Your task to perform on an android device: toggle improve location accuracy Image 0: 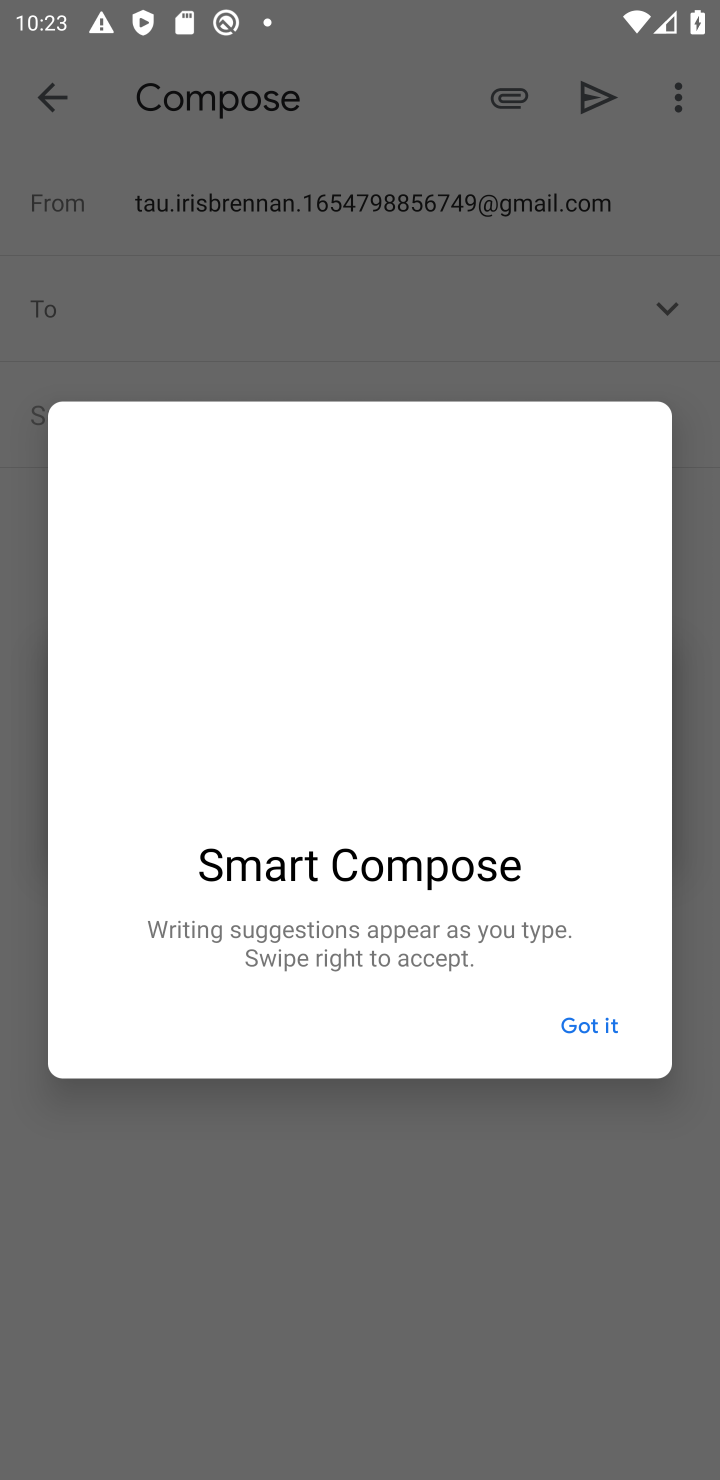
Step 0: press home button
Your task to perform on an android device: toggle improve location accuracy Image 1: 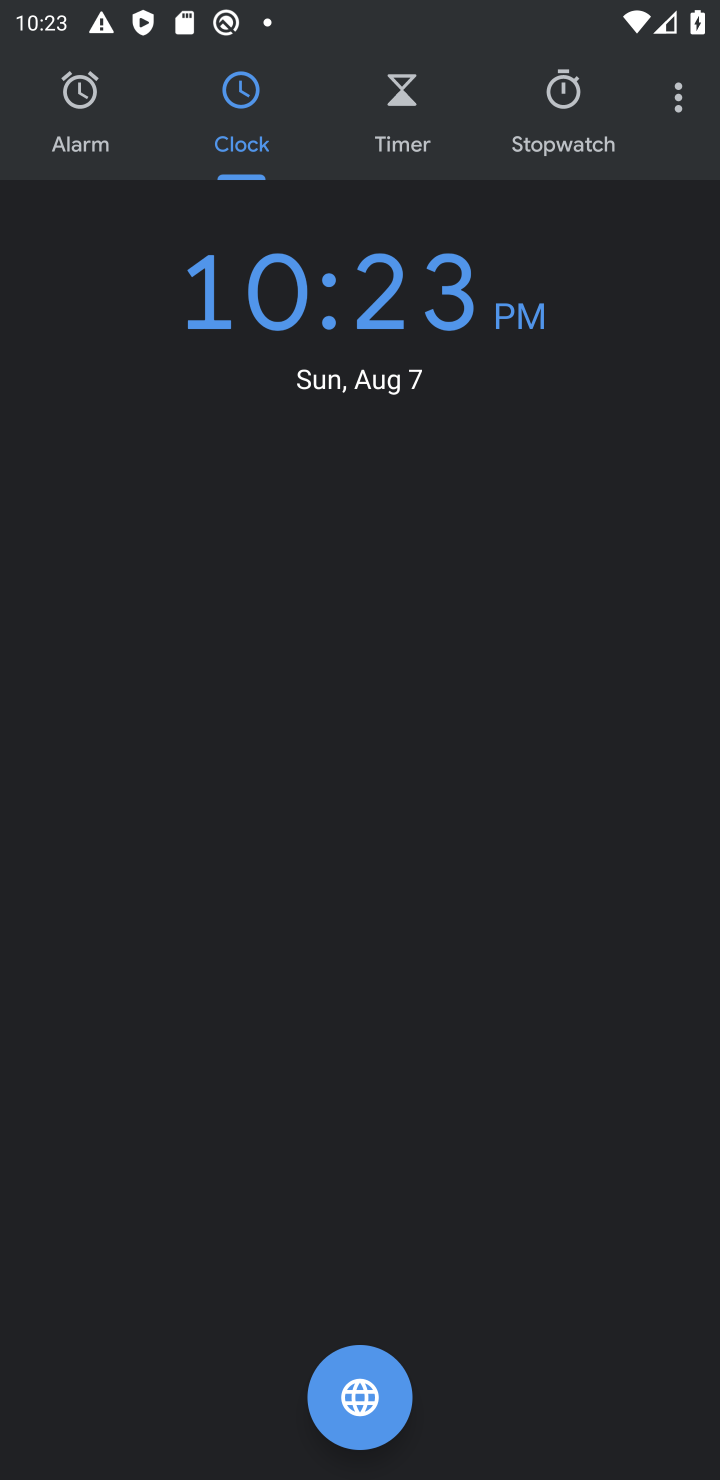
Step 1: press home button
Your task to perform on an android device: toggle improve location accuracy Image 2: 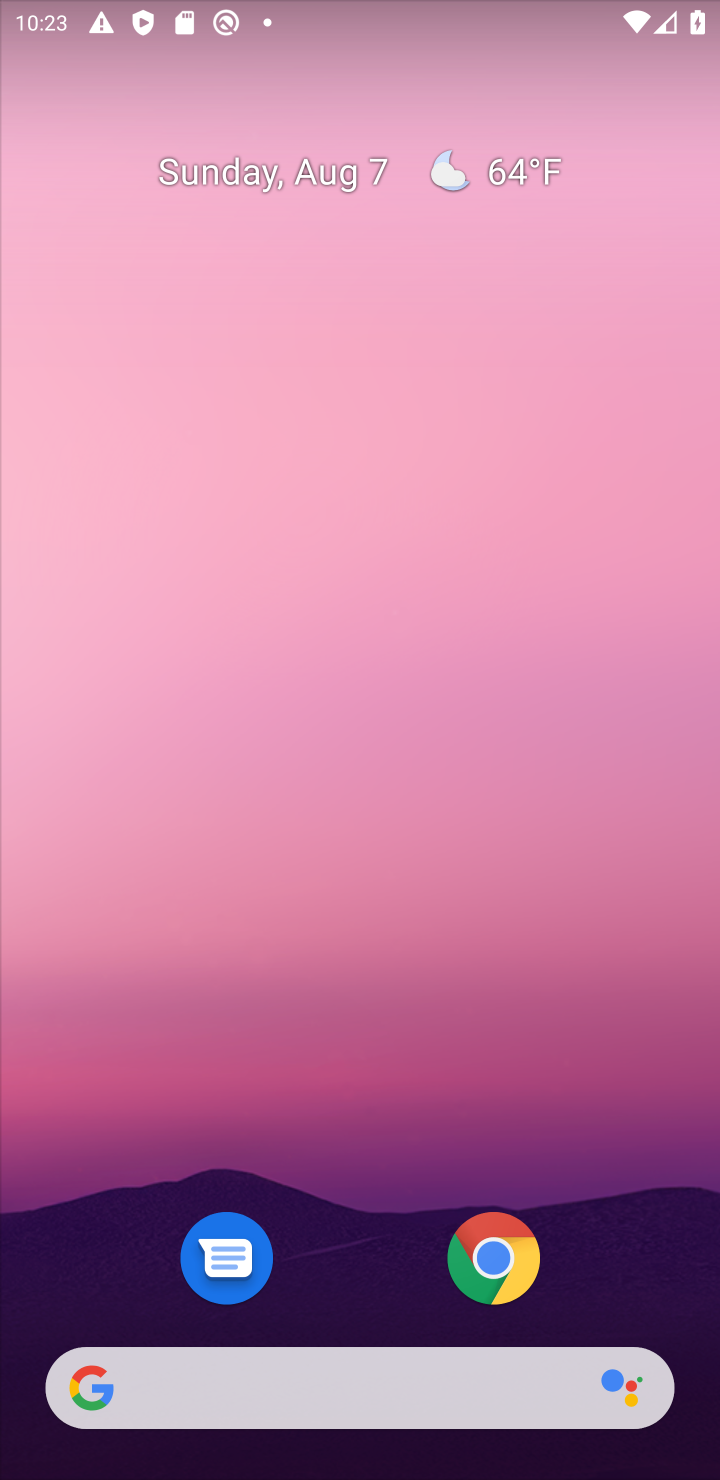
Step 2: press home button
Your task to perform on an android device: toggle improve location accuracy Image 3: 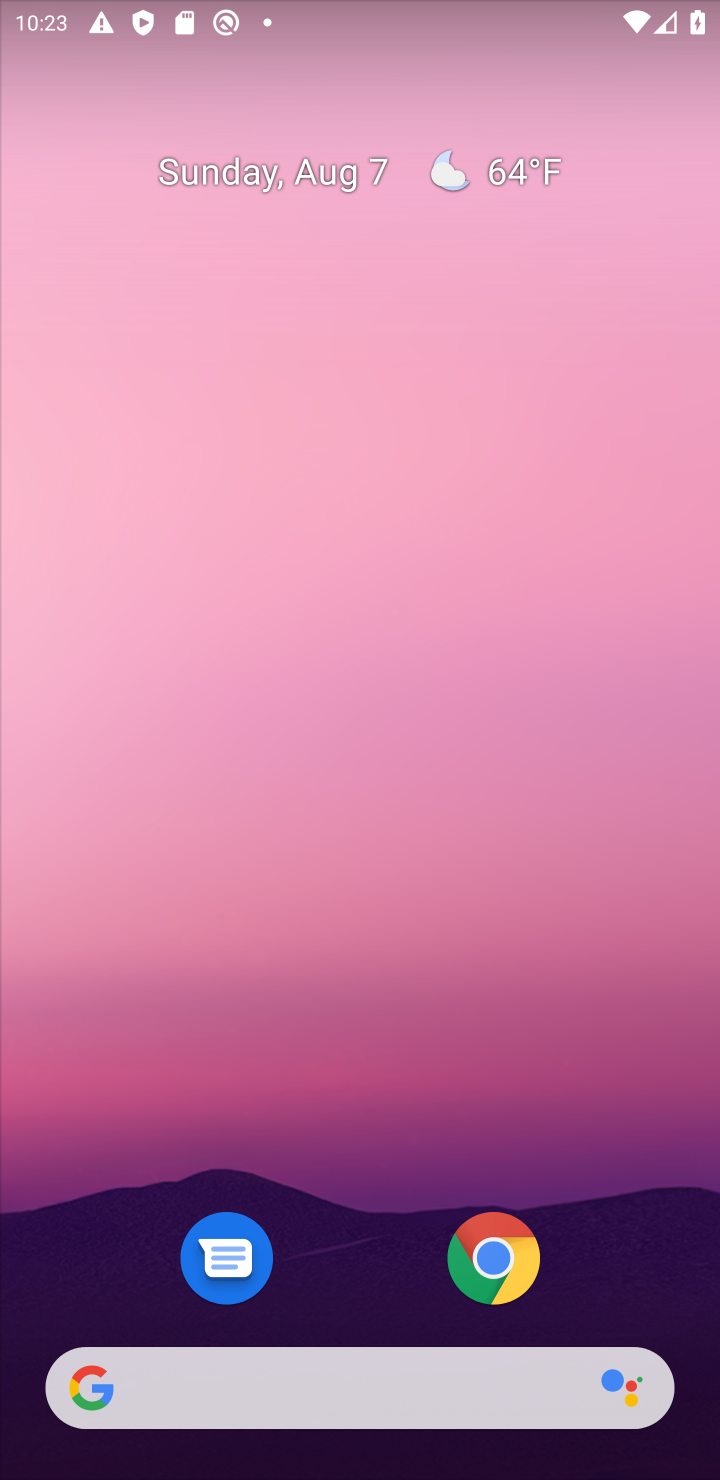
Step 3: click (560, 509)
Your task to perform on an android device: toggle improve location accuracy Image 4: 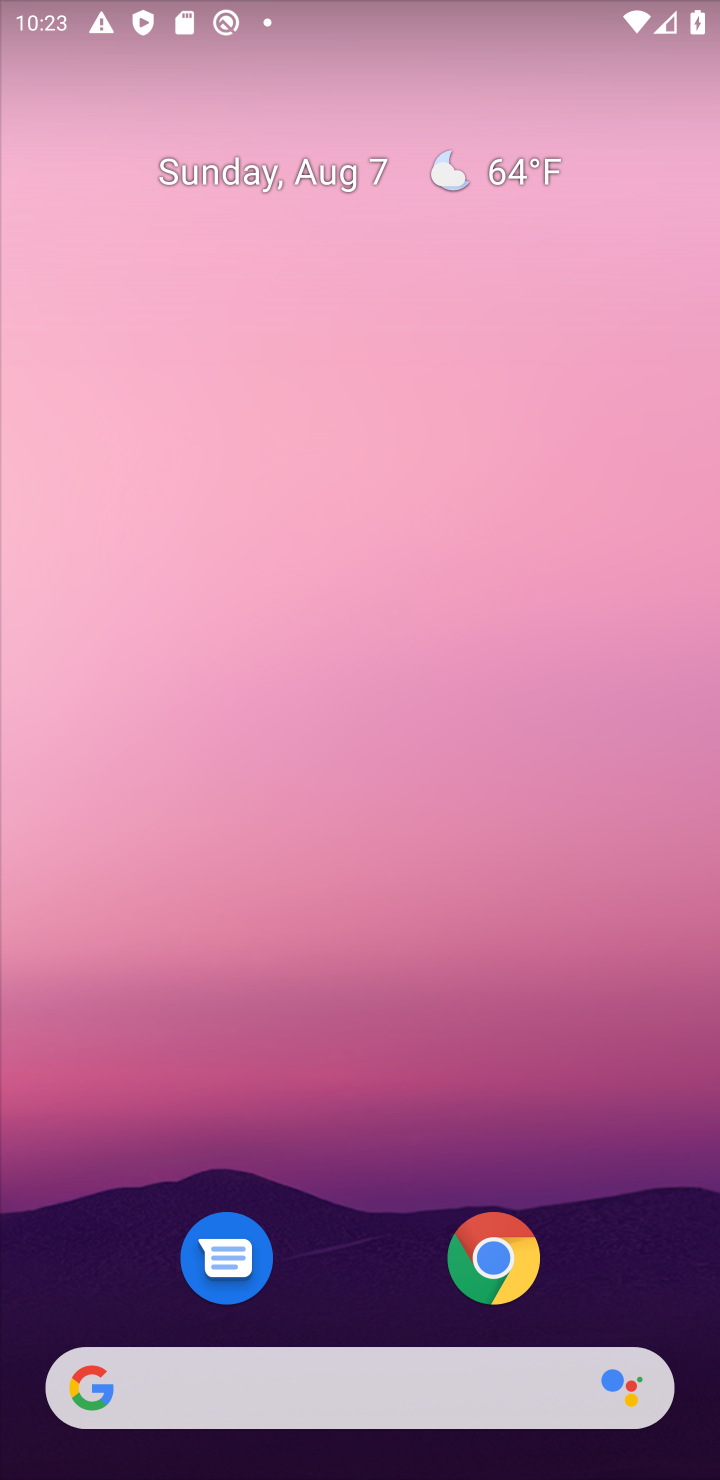
Step 4: drag from (334, 1223) to (220, 105)
Your task to perform on an android device: toggle improve location accuracy Image 5: 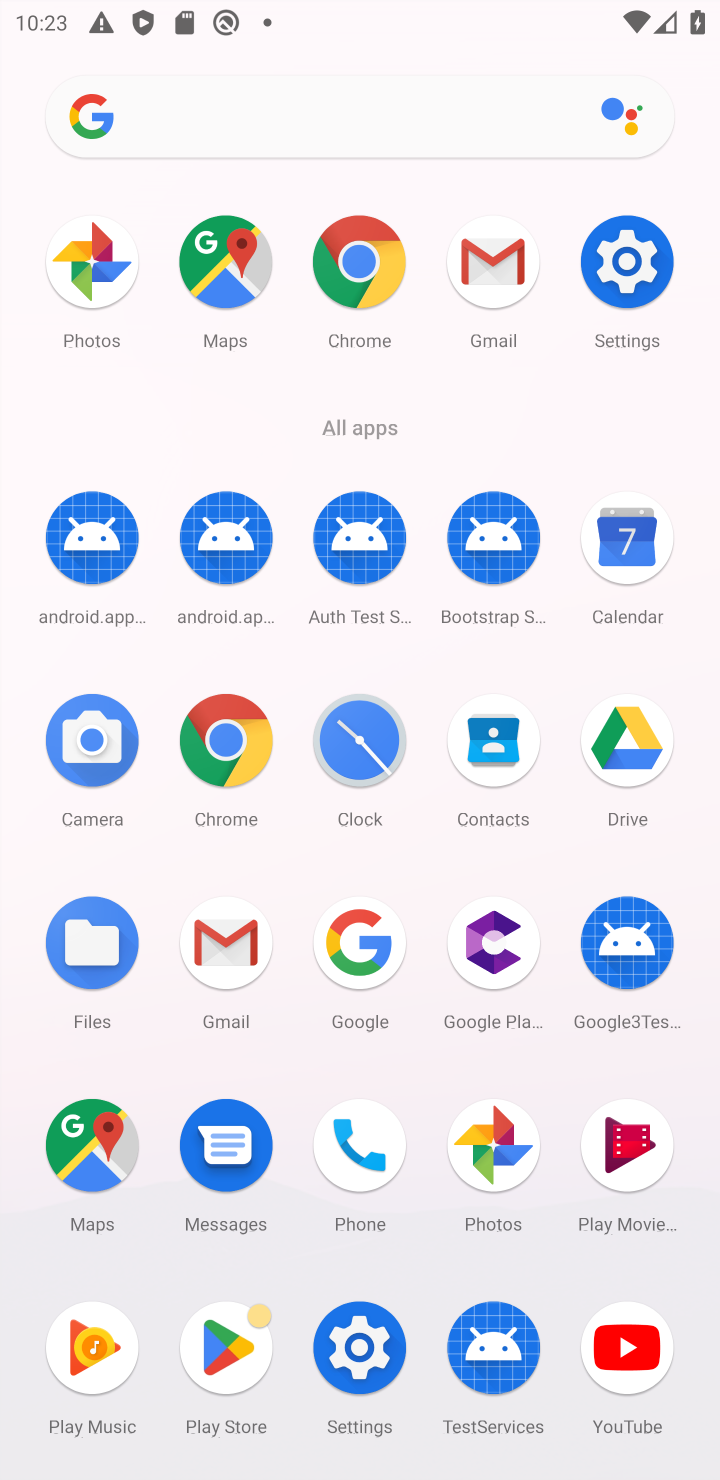
Step 5: click (604, 277)
Your task to perform on an android device: toggle improve location accuracy Image 6: 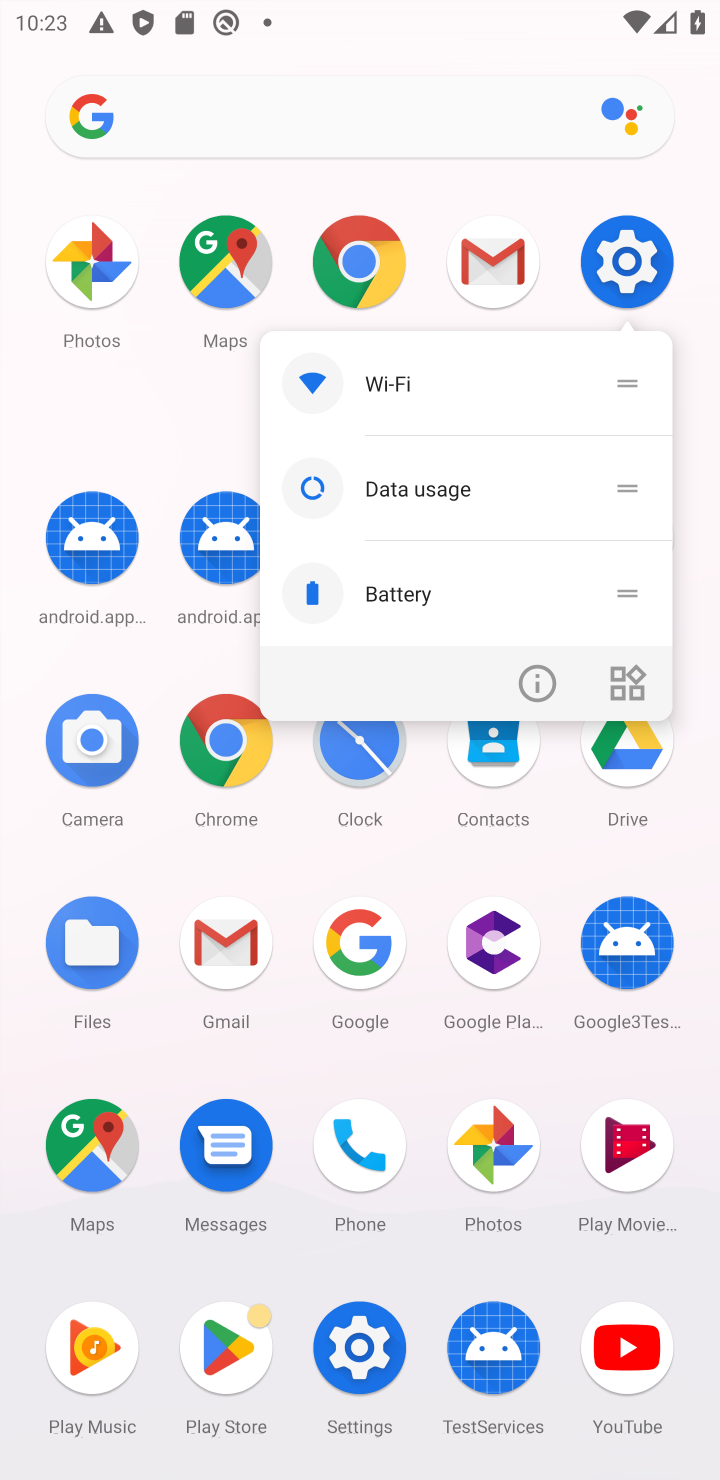
Step 6: click (604, 277)
Your task to perform on an android device: toggle improve location accuracy Image 7: 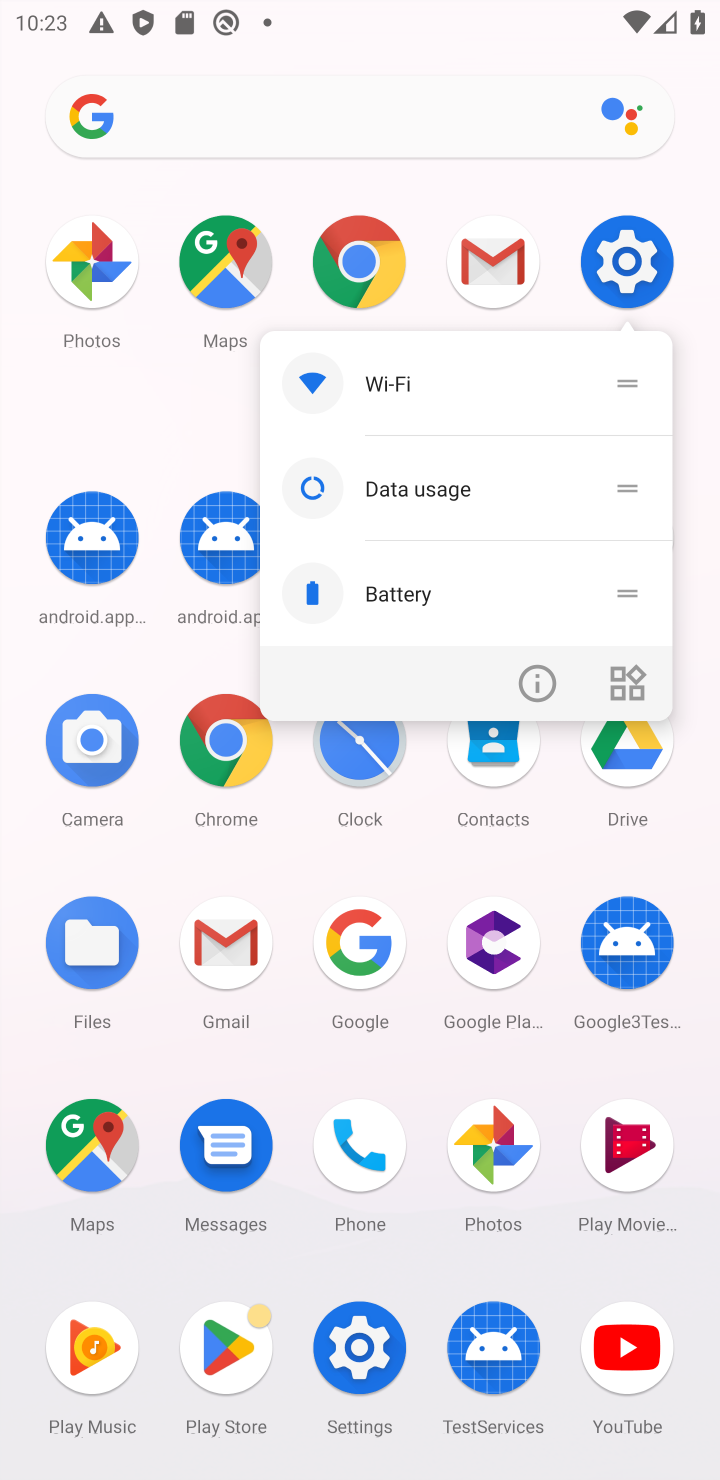
Step 7: click (604, 277)
Your task to perform on an android device: toggle improve location accuracy Image 8: 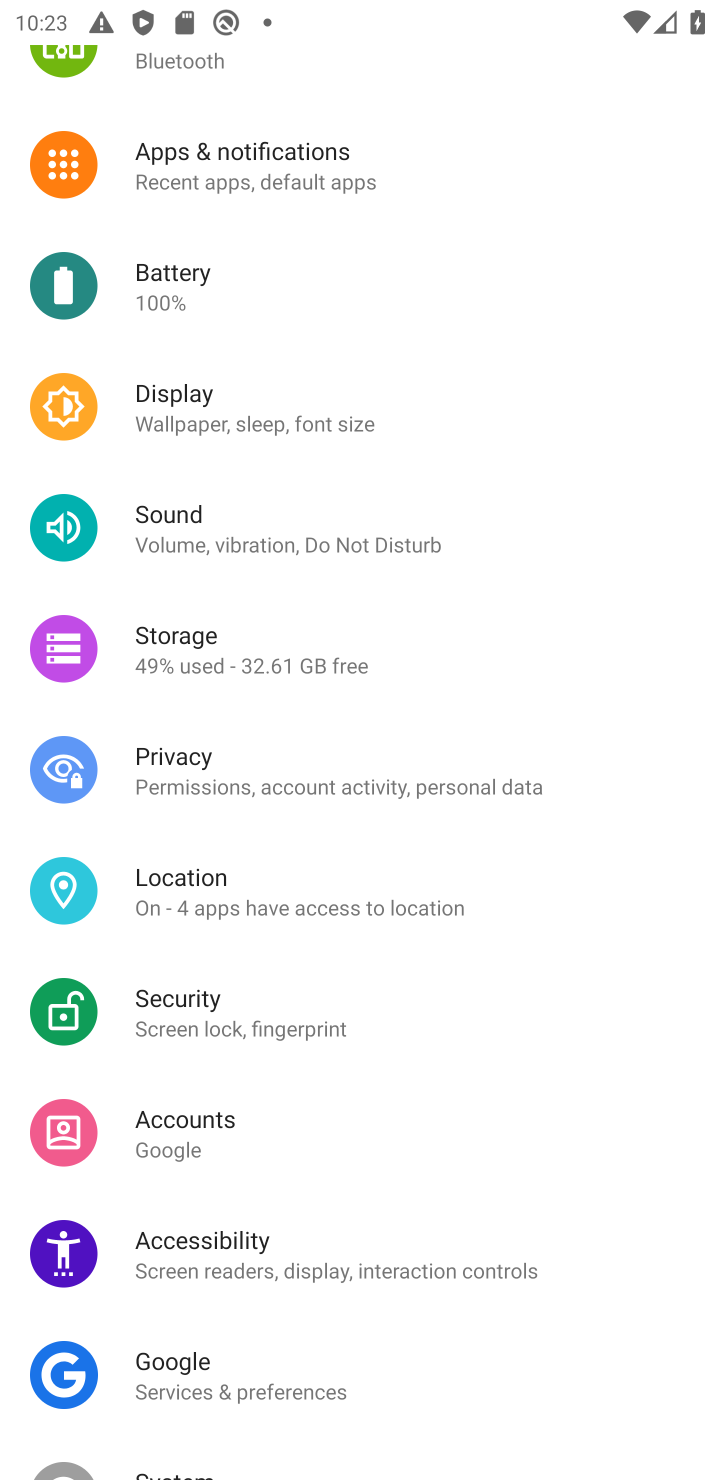
Step 8: drag from (342, 1300) to (316, 791)
Your task to perform on an android device: toggle improve location accuracy Image 9: 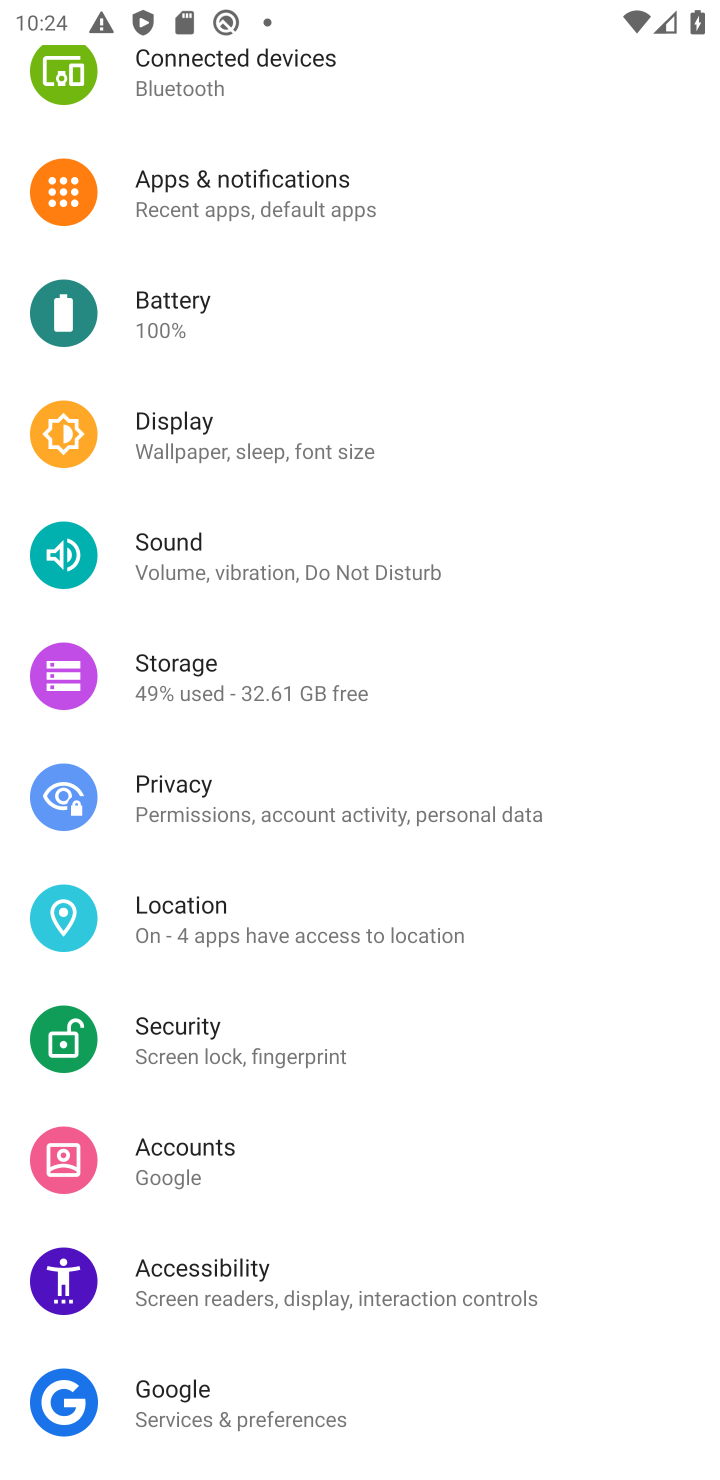
Step 9: click (245, 922)
Your task to perform on an android device: toggle improve location accuracy Image 10: 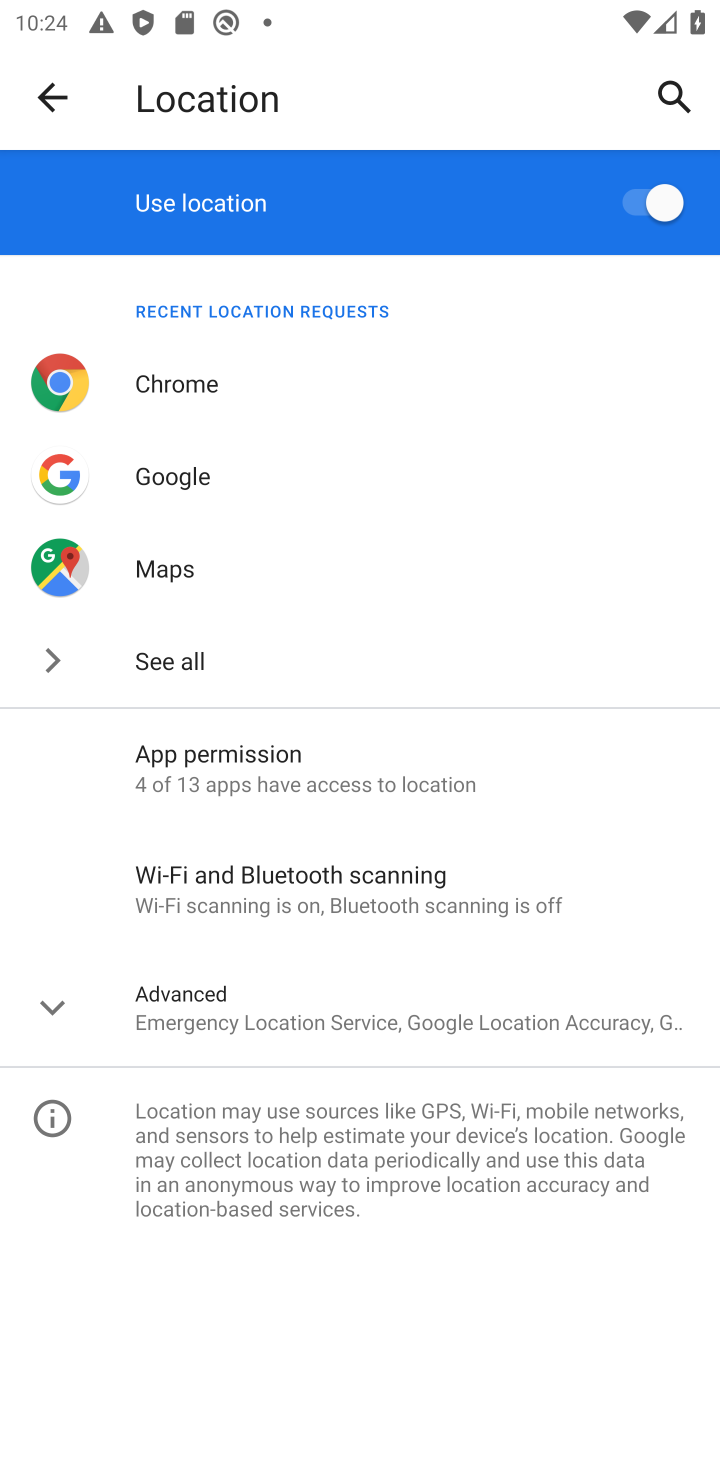
Step 10: click (230, 988)
Your task to perform on an android device: toggle improve location accuracy Image 11: 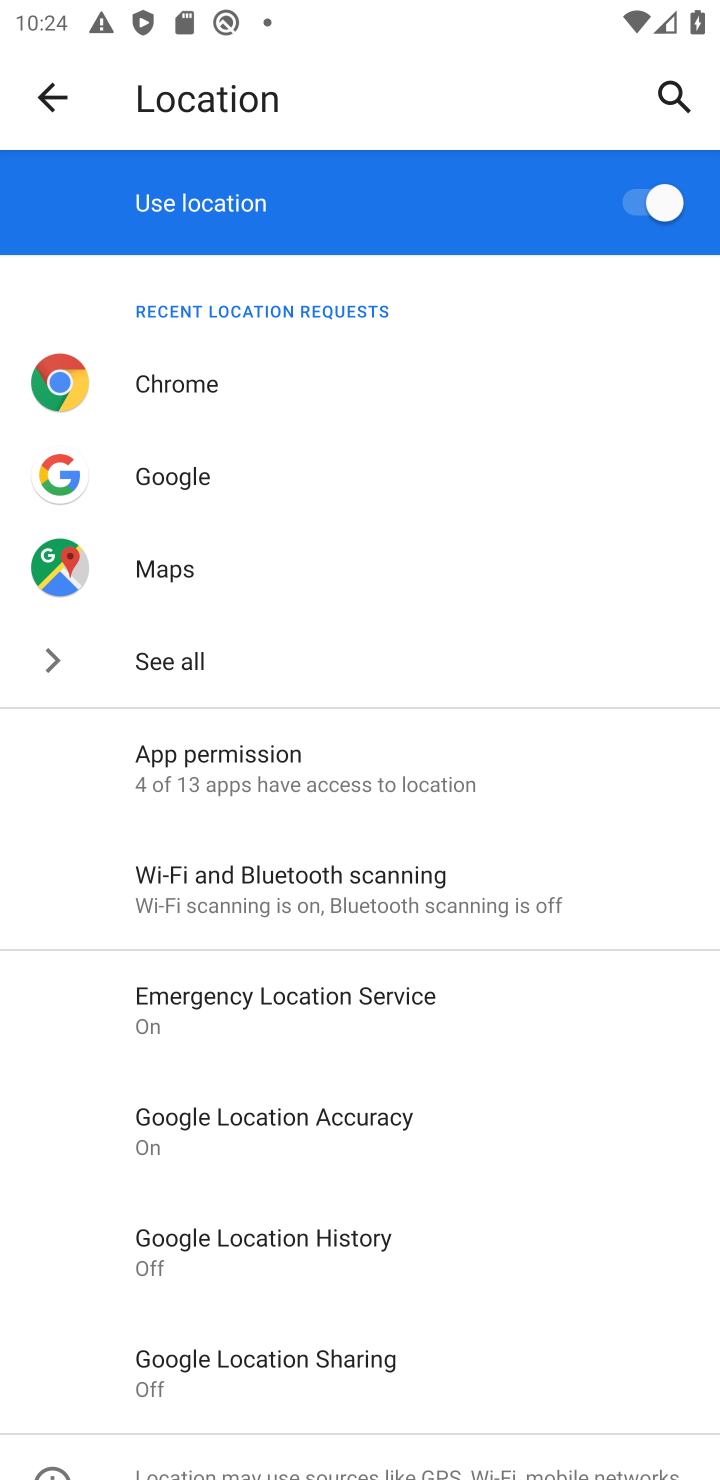
Step 11: click (321, 1125)
Your task to perform on an android device: toggle improve location accuracy Image 12: 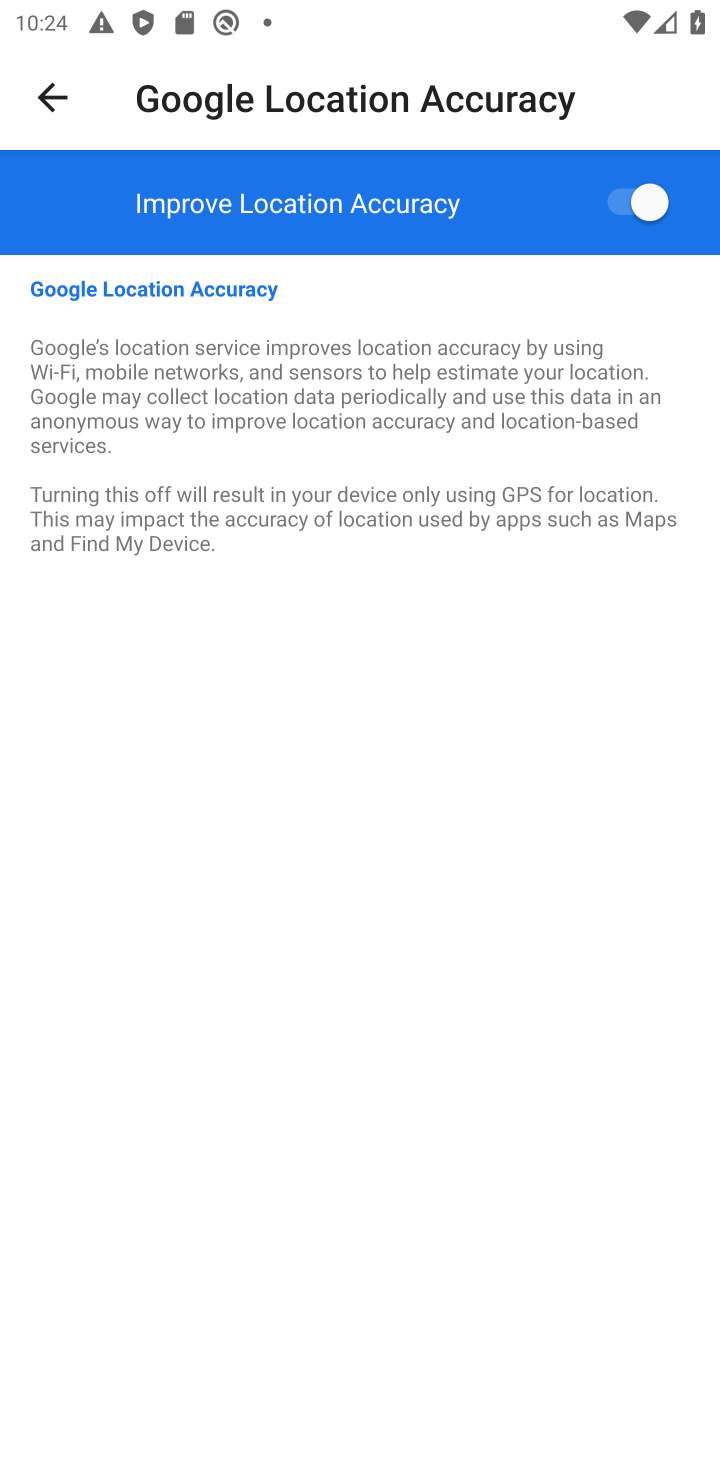
Step 12: click (384, 188)
Your task to perform on an android device: toggle improve location accuracy Image 13: 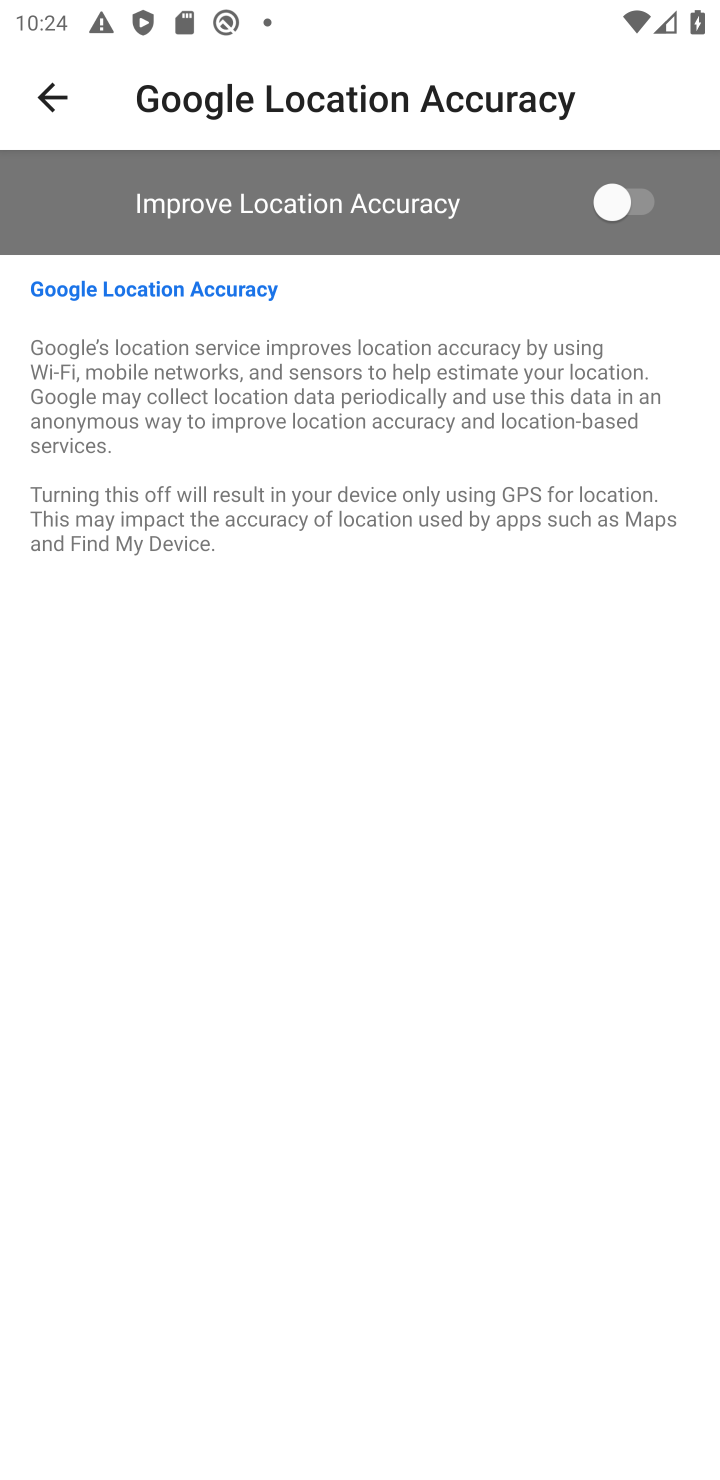
Step 13: task complete